Your task to perform on an android device: Open accessibility settings Image 0: 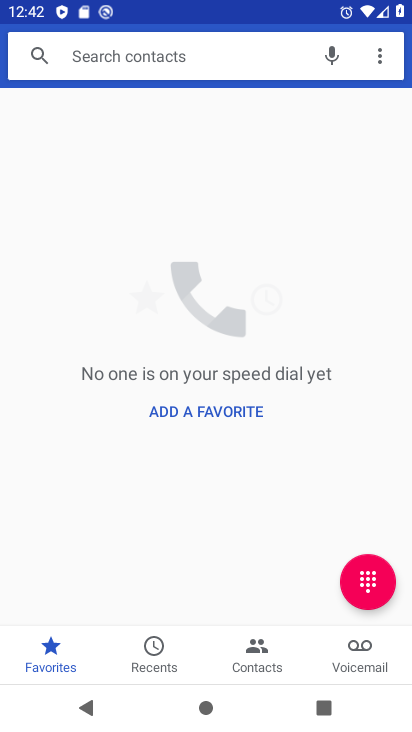
Step 0: press home button
Your task to perform on an android device: Open accessibility settings Image 1: 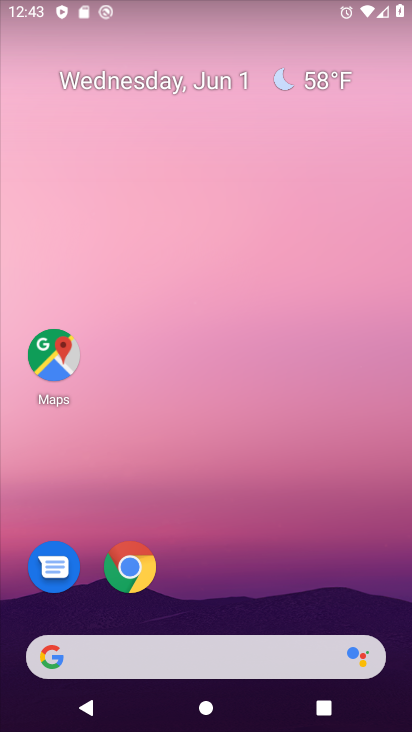
Step 1: drag from (229, 578) to (243, 113)
Your task to perform on an android device: Open accessibility settings Image 2: 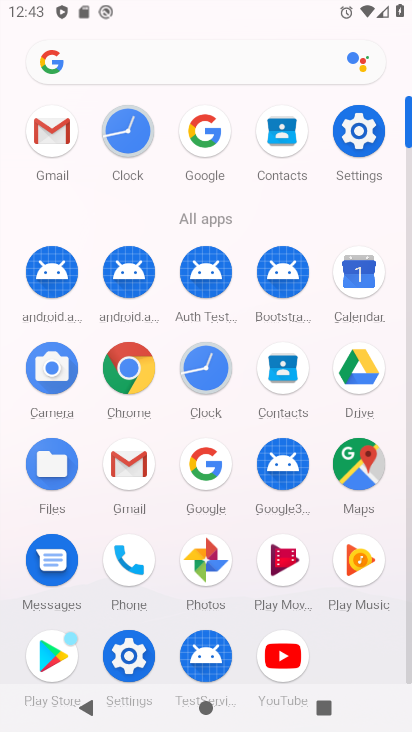
Step 2: click (362, 131)
Your task to perform on an android device: Open accessibility settings Image 3: 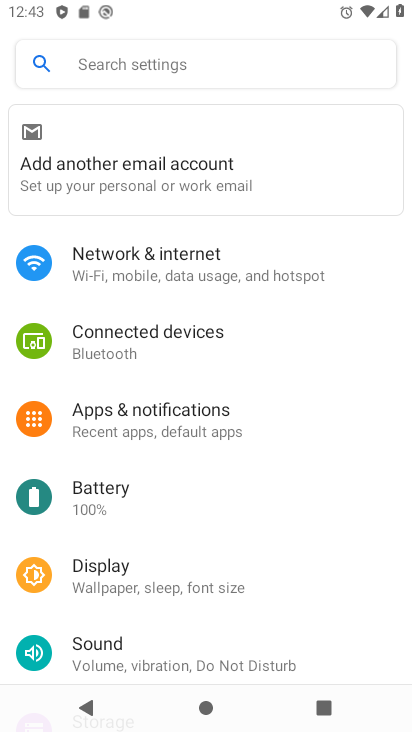
Step 3: drag from (212, 639) to (250, 56)
Your task to perform on an android device: Open accessibility settings Image 4: 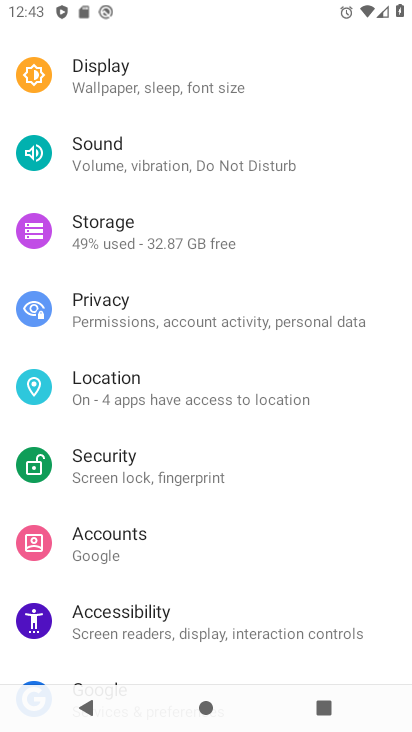
Step 4: click (128, 624)
Your task to perform on an android device: Open accessibility settings Image 5: 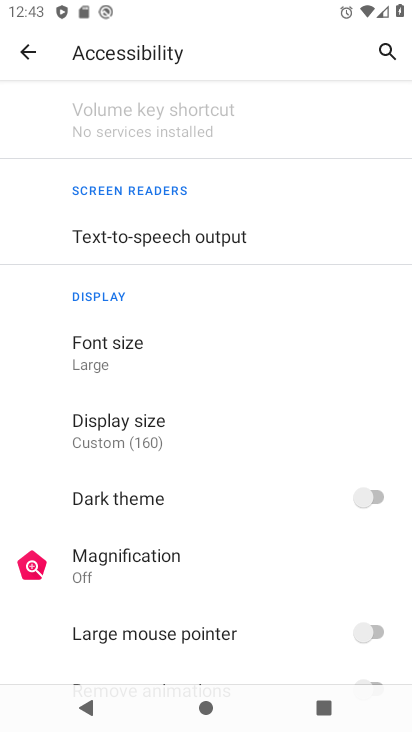
Step 5: task complete